Your task to perform on an android device: change notifications settings Image 0: 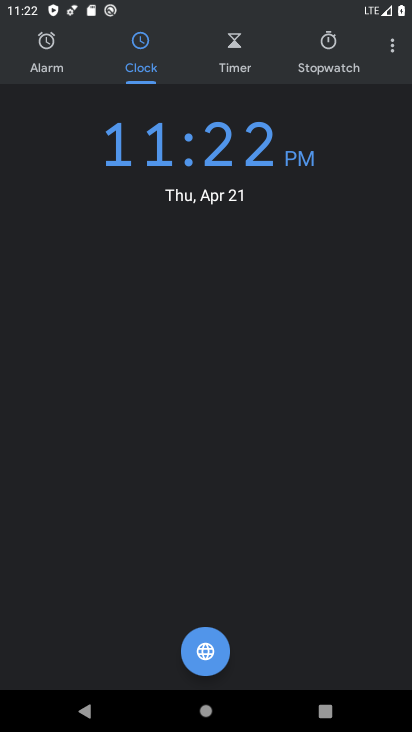
Step 0: press home button
Your task to perform on an android device: change notifications settings Image 1: 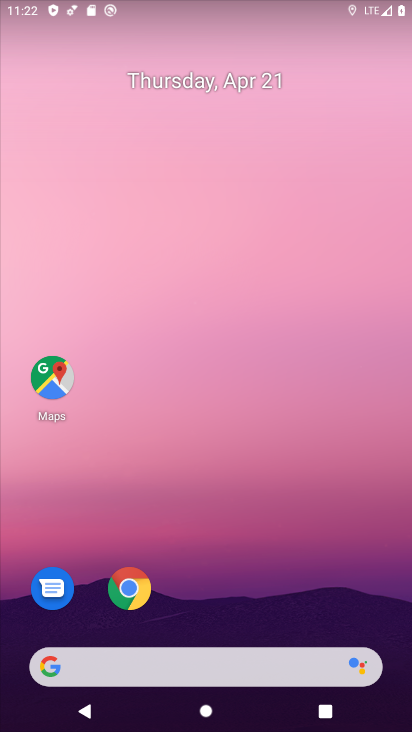
Step 1: drag from (309, 687) to (304, 177)
Your task to perform on an android device: change notifications settings Image 2: 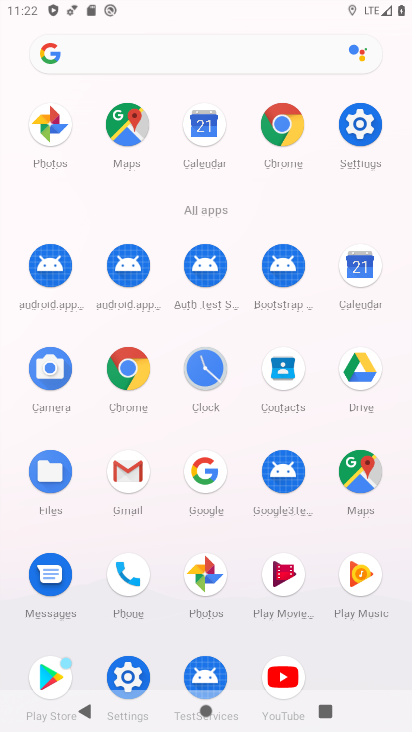
Step 2: click (356, 139)
Your task to perform on an android device: change notifications settings Image 3: 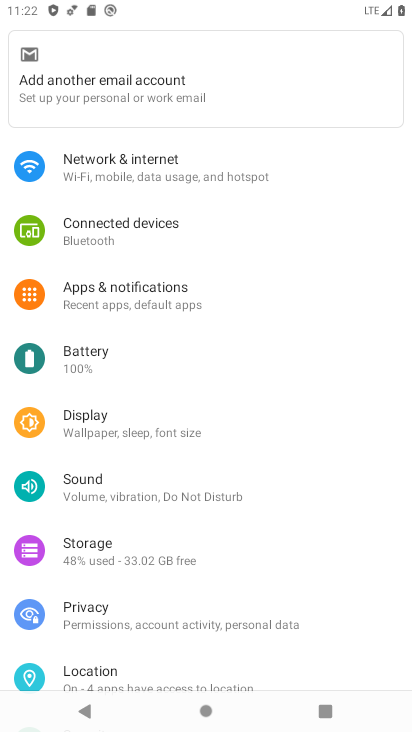
Step 3: drag from (220, 305) to (197, 394)
Your task to perform on an android device: change notifications settings Image 4: 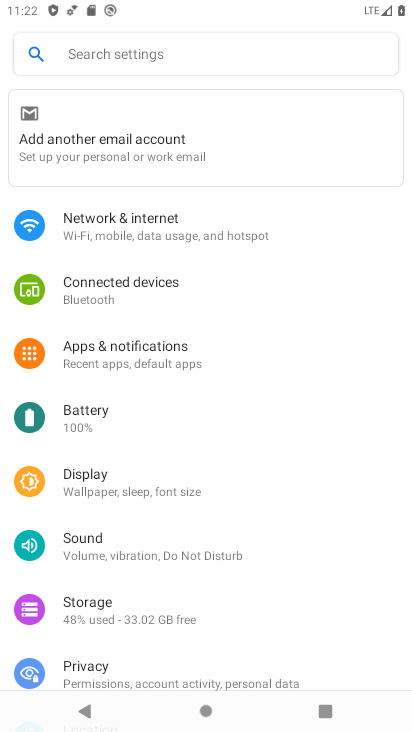
Step 4: click (135, 52)
Your task to perform on an android device: change notifications settings Image 5: 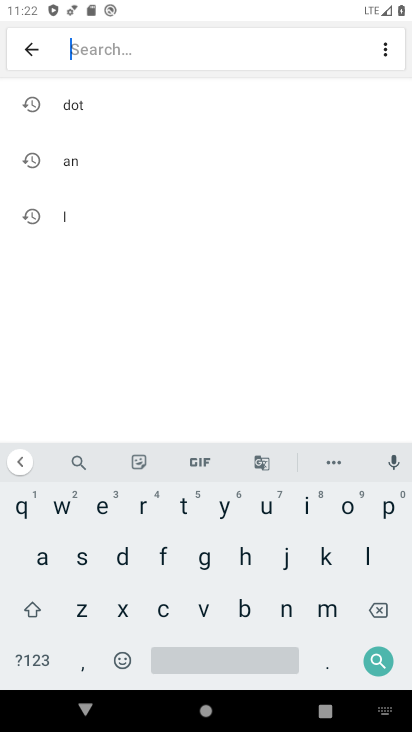
Step 5: click (284, 616)
Your task to perform on an android device: change notifications settings Image 6: 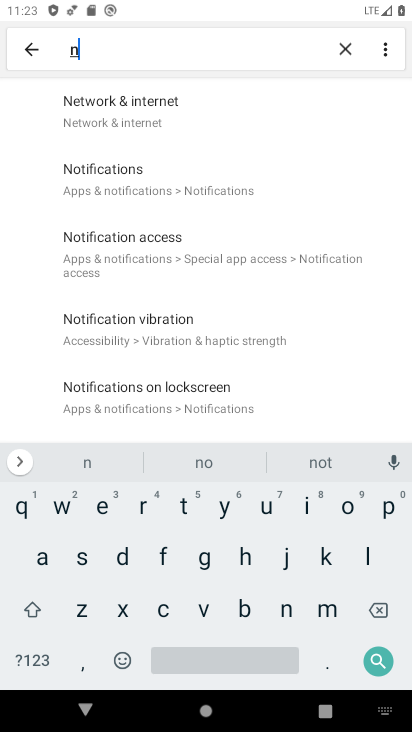
Step 6: click (193, 183)
Your task to perform on an android device: change notifications settings Image 7: 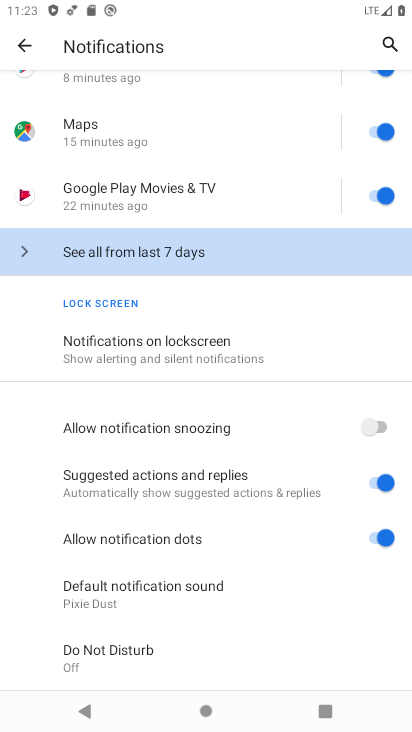
Step 7: click (114, 343)
Your task to perform on an android device: change notifications settings Image 8: 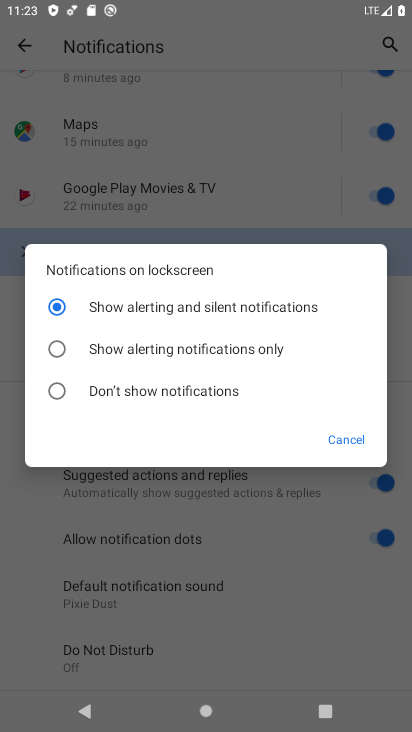
Step 8: click (114, 343)
Your task to perform on an android device: change notifications settings Image 9: 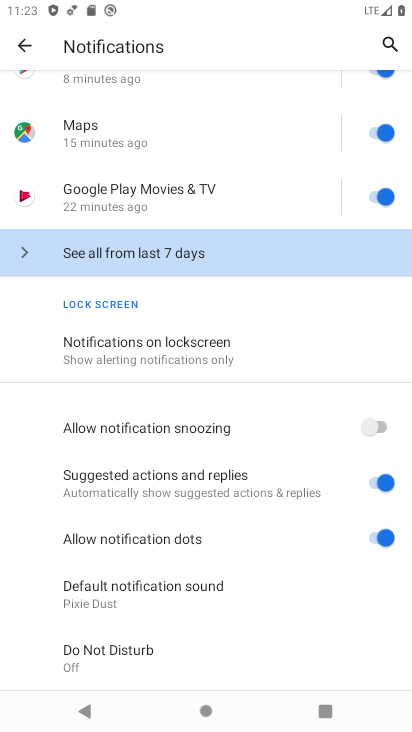
Step 9: task complete